Your task to perform on an android device: check out phone information Image 0: 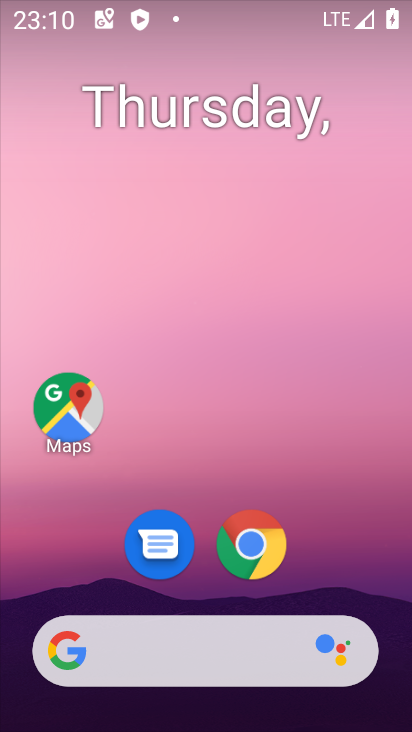
Step 0: drag from (299, 573) to (57, 122)
Your task to perform on an android device: check out phone information Image 1: 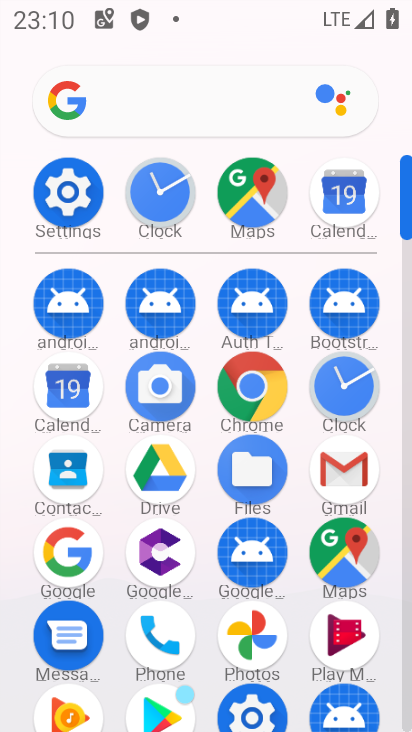
Step 1: click (161, 642)
Your task to perform on an android device: check out phone information Image 2: 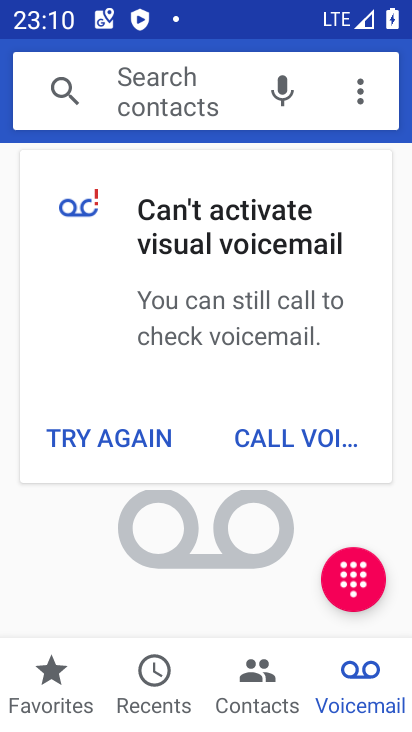
Step 2: click (364, 85)
Your task to perform on an android device: check out phone information Image 3: 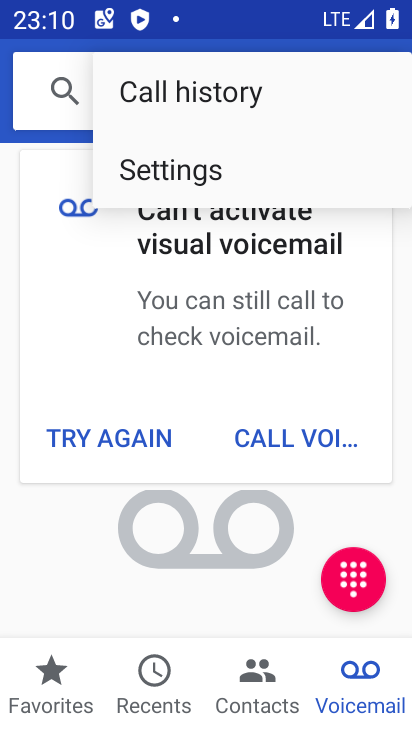
Step 3: click (182, 172)
Your task to perform on an android device: check out phone information Image 4: 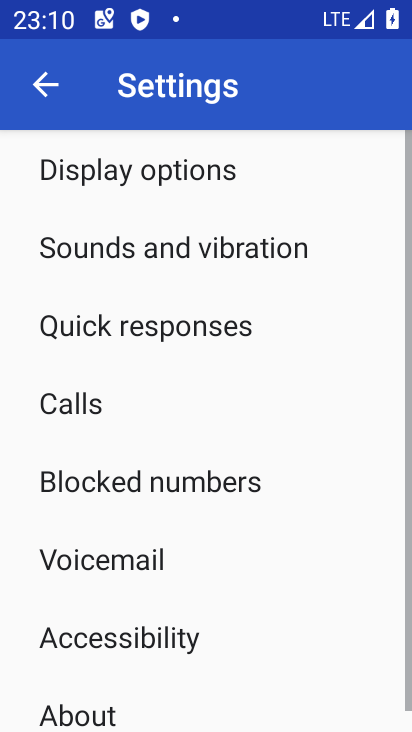
Step 4: click (119, 715)
Your task to perform on an android device: check out phone information Image 5: 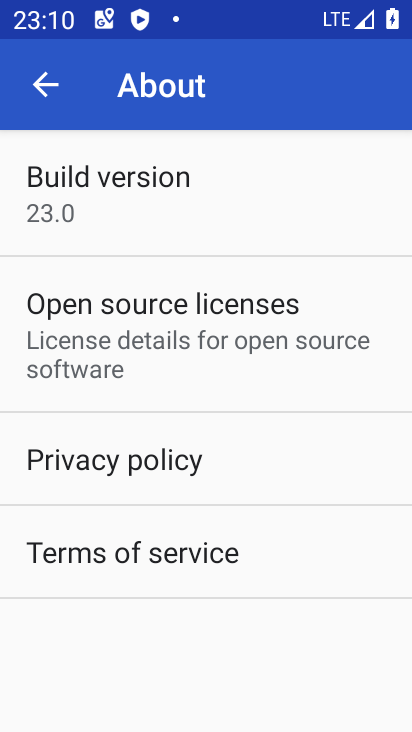
Step 5: task complete